Your task to perform on an android device: Open the calendar and show me this week's events? Image 0: 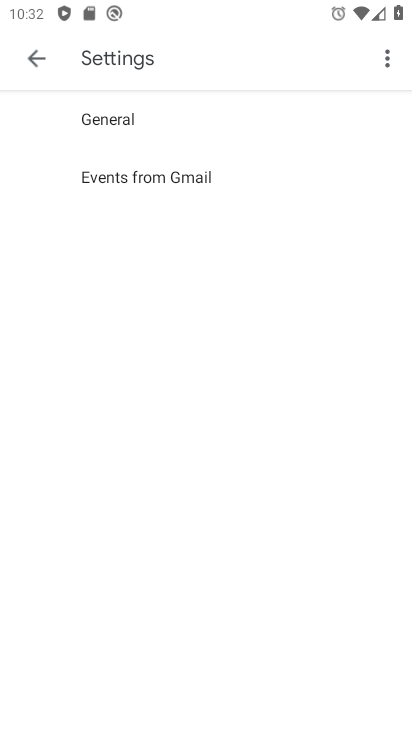
Step 0: press home button
Your task to perform on an android device: Open the calendar and show me this week's events? Image 1: 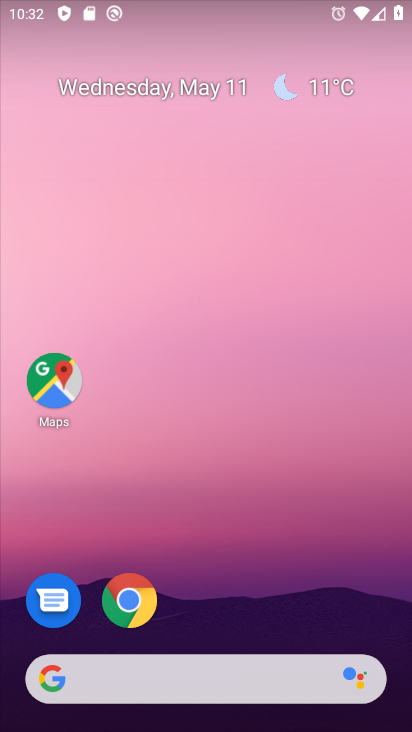
Step 1: drag from (214, 632) to (207, 64)
Your task to perform on an android device: Open the calendar and show me this week's events? Image 2: 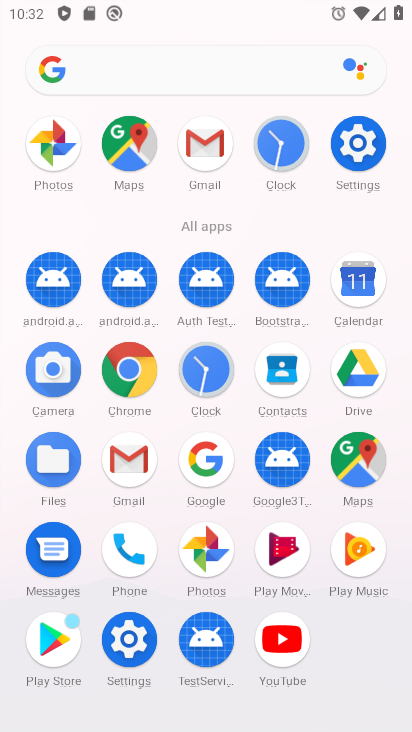
Step 2: click (364, 279)
Your task to perform on an android device: Open the calendar and show me this week's events? Image 3: 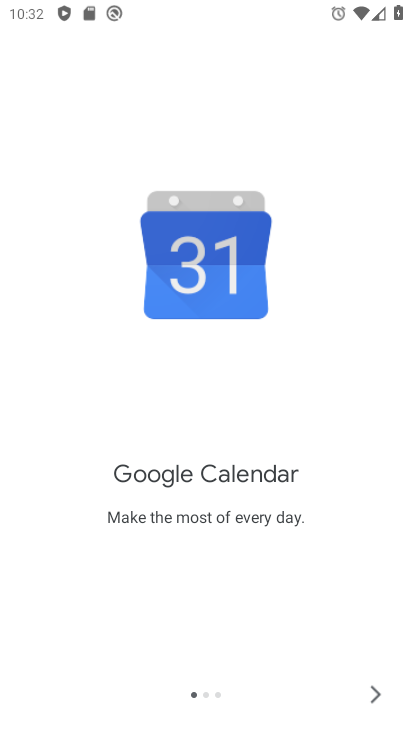
Step 3: click (381, 691)
Your task to perform on an android device: Open the calendar and show me this week's events? Image 4: 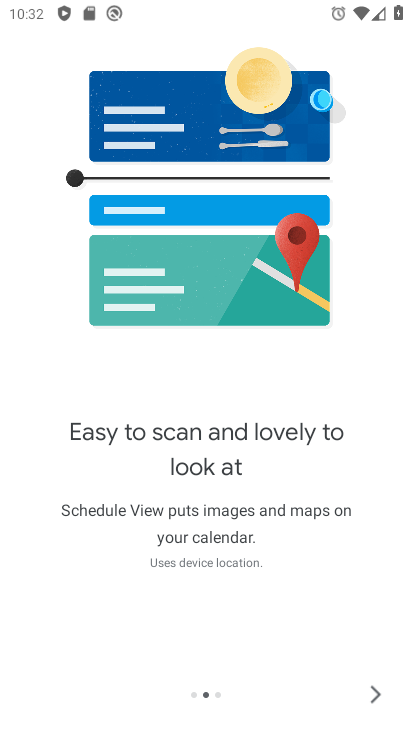
Step 4: click (381, 691)
Your task to perform on an android device: Open the calendar and show me this week's events? Image 5: 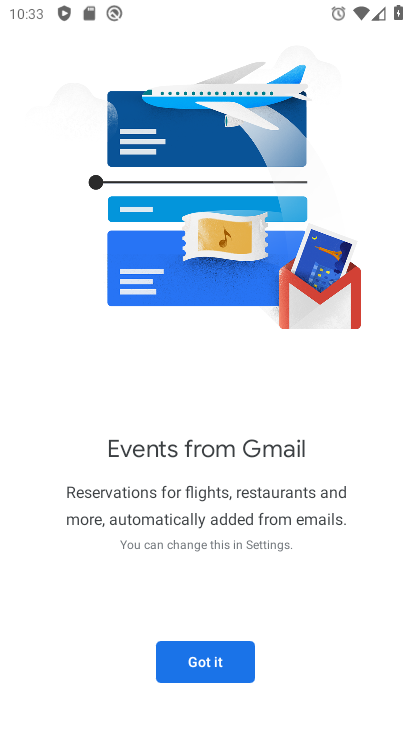
Step 5: click (192, 658)
Your task to perform on an android device: Open the calendar and show me this week's events? Image 6: 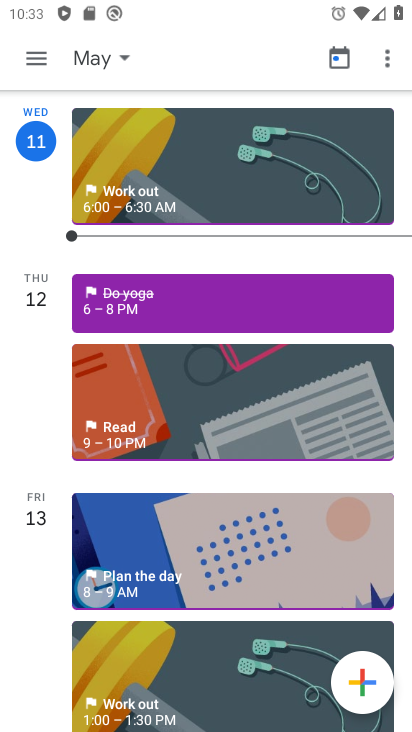
Step 6: press home button
Your task to perform on an android device: Open the calendar and show me this week's events? Image 7: 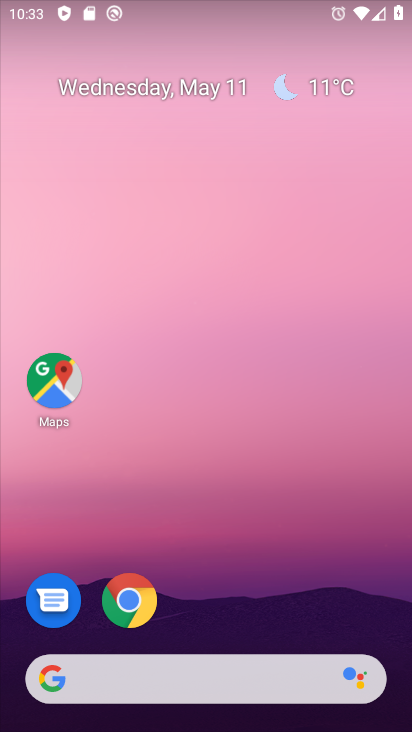
Step 7: drag from (218, 641) to (411, 394)
Your task to perform on an android device: Open the calendar and show me this week's events? Image 8: 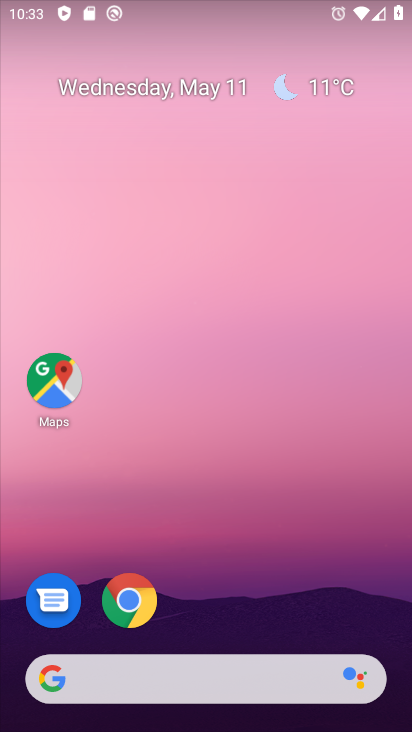
Step 8: drag from (205, 650) to (53, 66)
Your task to perform on an android device: Open the calendar and show me this week's events? Image 9: 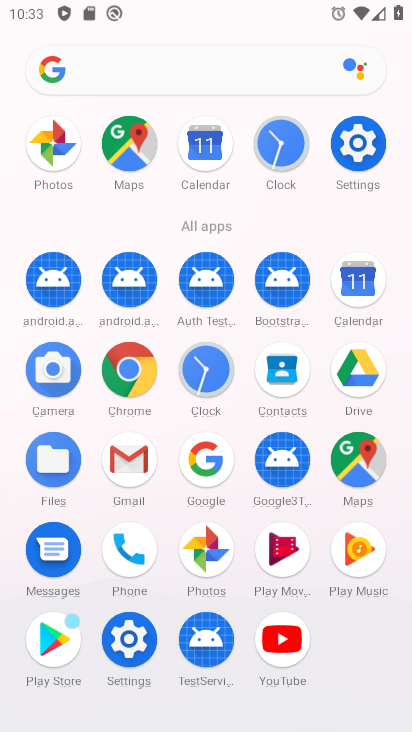
Step 9: click (365, 288)
Your task to perform on an android device: Open the calendar and show me this week's events? Image 10: 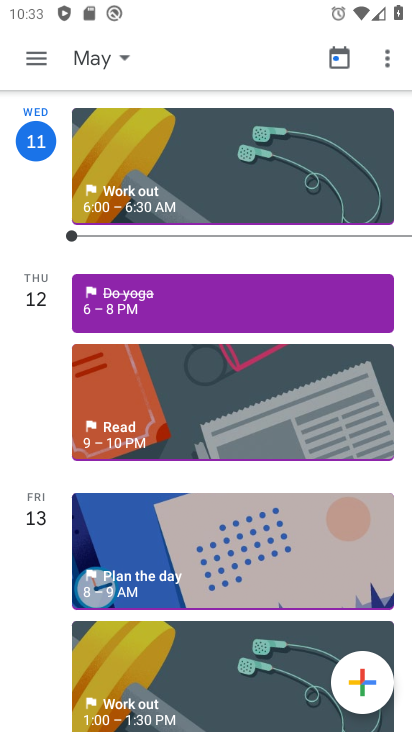
Step 10: click (31, 53)
Your task to perform on an android device: Open the calendar and show me this week's events? Image 11: 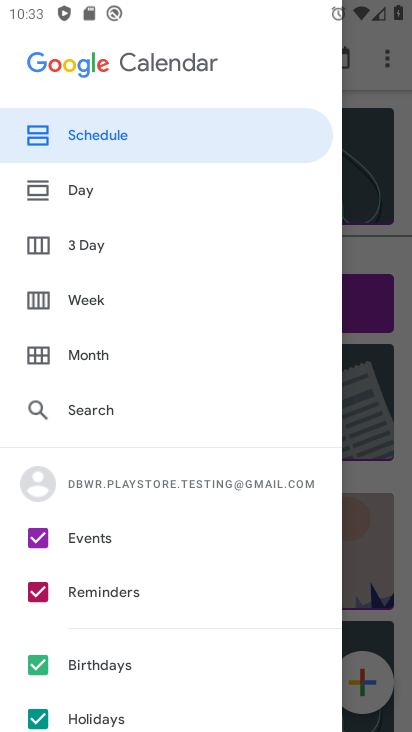
Step 11: click (102, 313)
Your task to perform on an android device: Open the calendar and show me this week's events? Image 12: 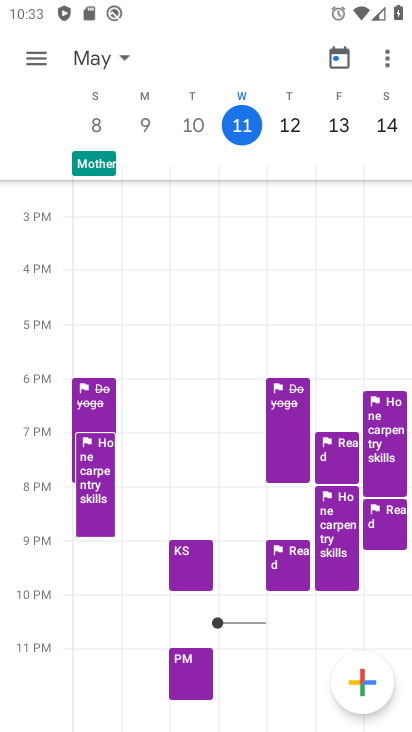
Step 12: task complete